Your task to perform on an android device: Set the phone to "Do not disturb". Image 0: 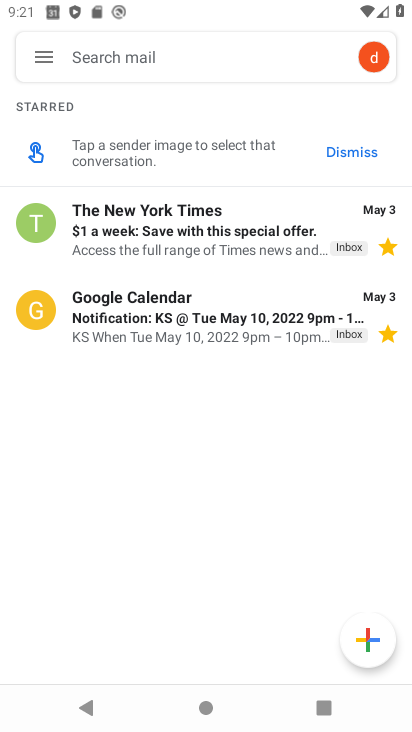
Step 0: press home button
Your task to perform on an android device: Set the phone to "Do not disturb". Image 1: 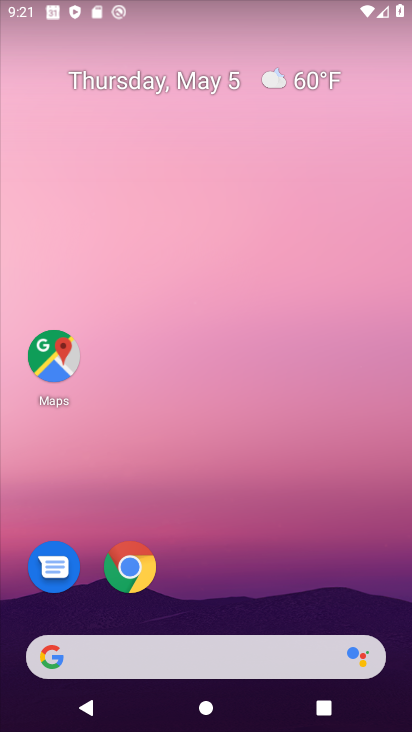
Step 1: drag from (220, 728) to (219, 164)
Your task to perform on an android device: Set the phone to "Do not disturb". Image 2: 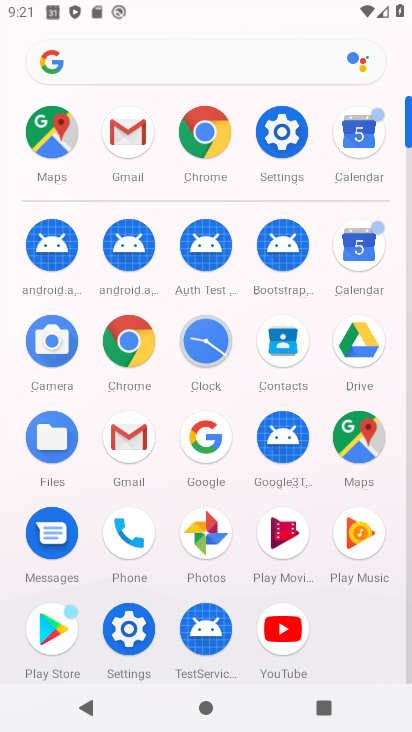
Step 2: click (284, 135)
Your task to perform on an android device: Set the phone to "Do not disturb". Image 3: 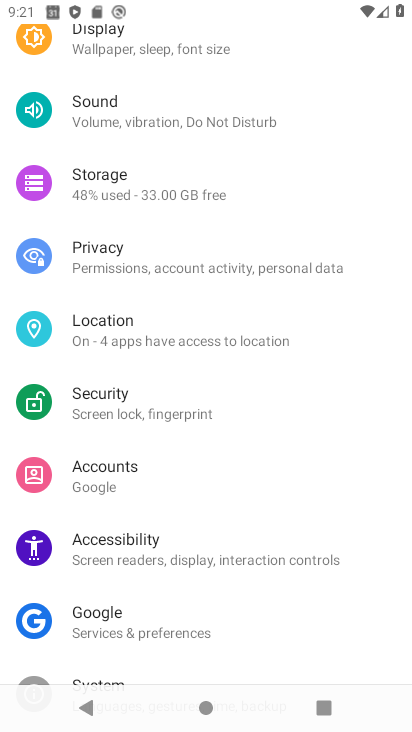
Step 3: drag from (128, 659) to (127, 310)
Your task to perform on an android device: Set the phone to "Do not disturb". Image 4: 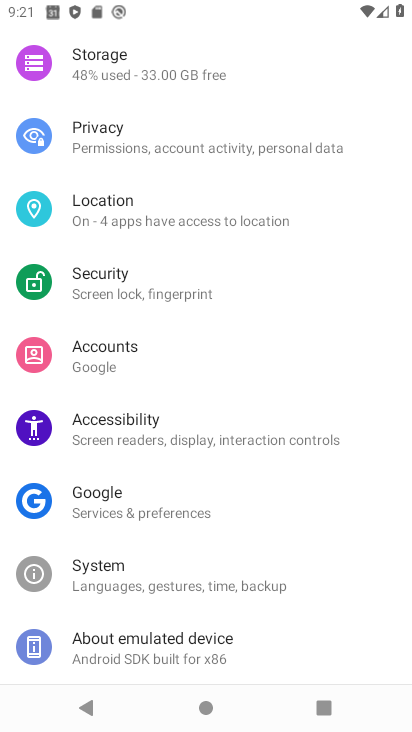
Step 4: drag from (193, 108) to (192, 586)
Your task to perform on an android device: Set the phone to "Do not disturb". Image 5: 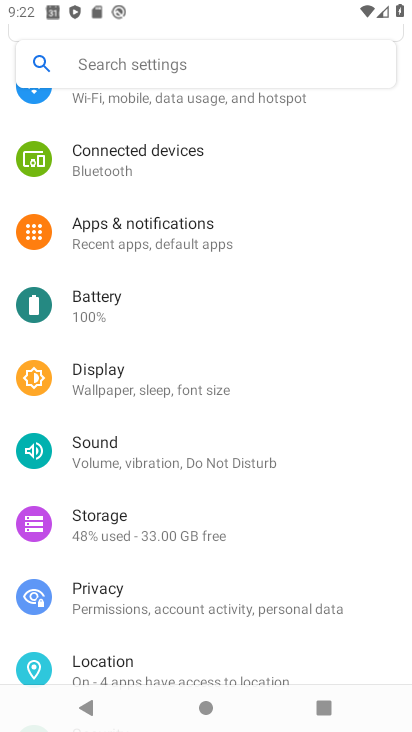
Step 5: click (140, 456)
Your task to perform on an android device: Set the phone to "Do not disturb". Image 6: 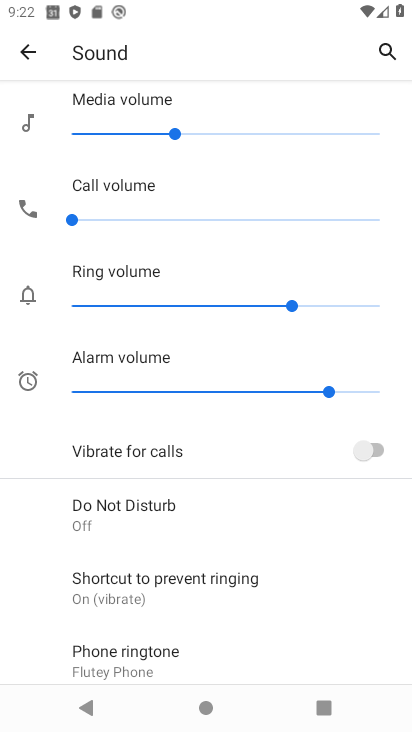
Step 6: click (138, 507)
Your task to perform on an android device: Set the phone to "Do not disturb". Image 7: 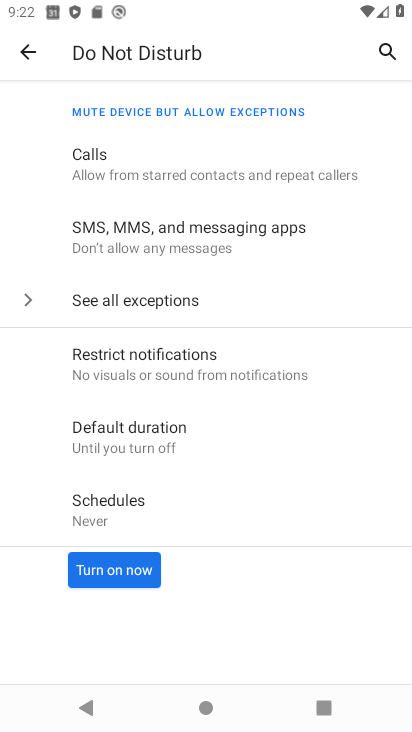
Step 7: click (113, 567)
Your task to perform on an android device: Set the phone to "Do not disturb". Image 8: 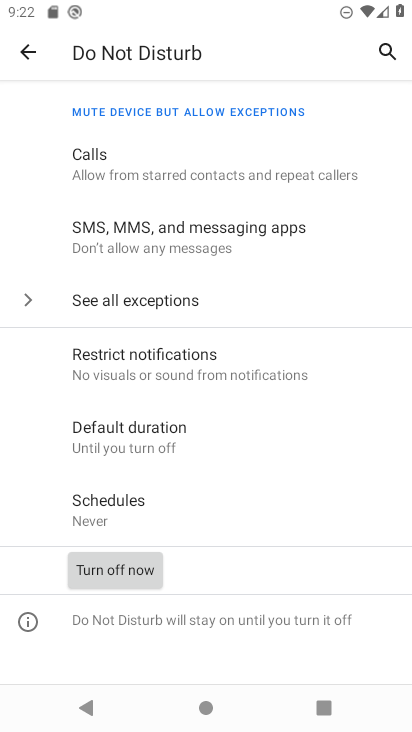
Step 8: task complete